Your task to perform on an android device: Go to display settings Image 0: 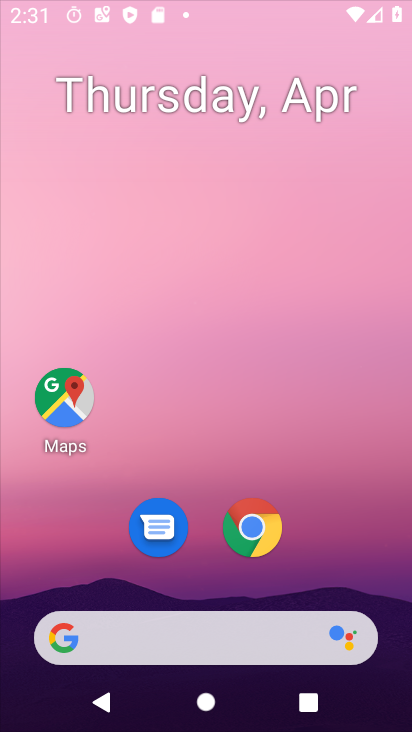
Step 0: click (300, 128)
Your task to perform on an android device: Go to display settings Image 1: 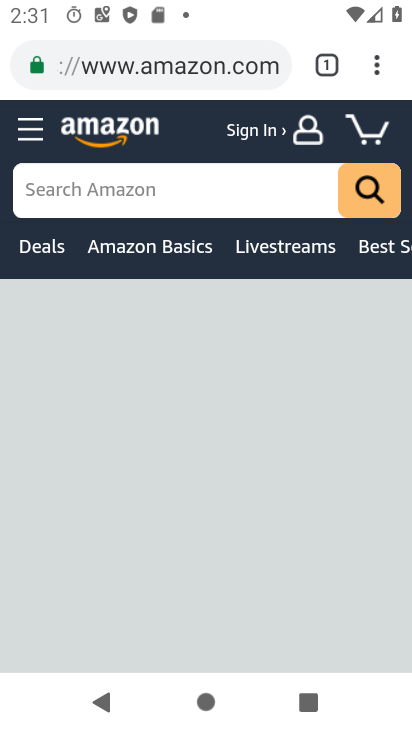
Step 1: press home button
Your task to perform on an android device: Go to display settings Image 2: 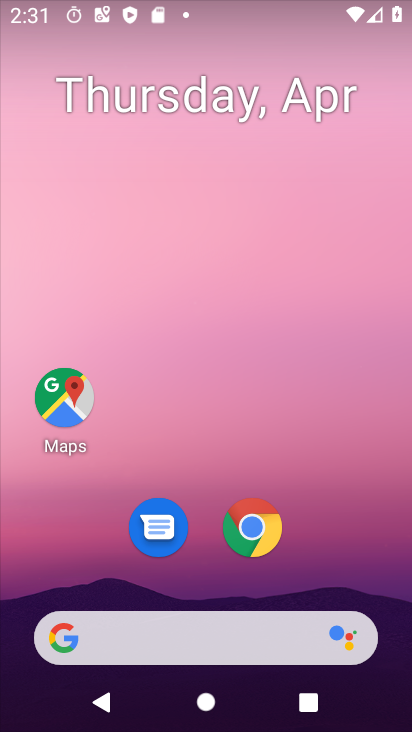
Step 2: drag from (327, 540) to (354, 106)
Your task to perform on an android device: Go to display settings Image 3: 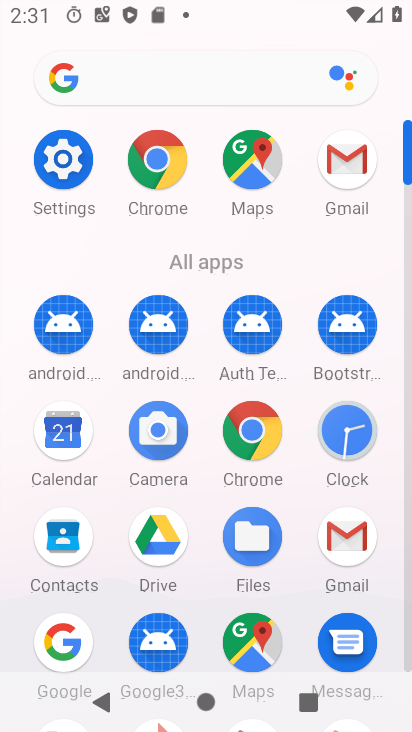
Step 3: click (74, 170)
Your task to perform on an android device: Go to display settings Image 4: 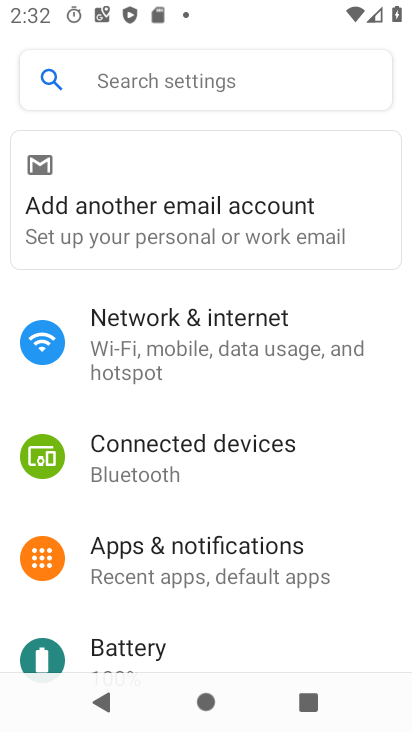
Step 4: drag from (219, 601) to (269, 228)
Your task to perform on an android device: Go to display settings Image 5: 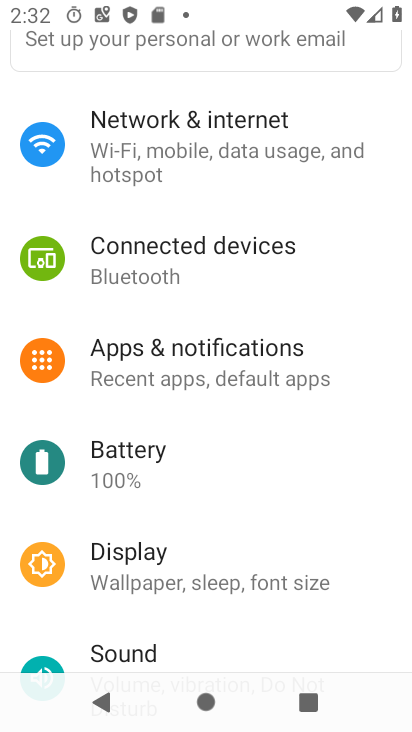
Step 5: click (163, 549)
Your task to perform on an android device: Go to display settings Image 6: 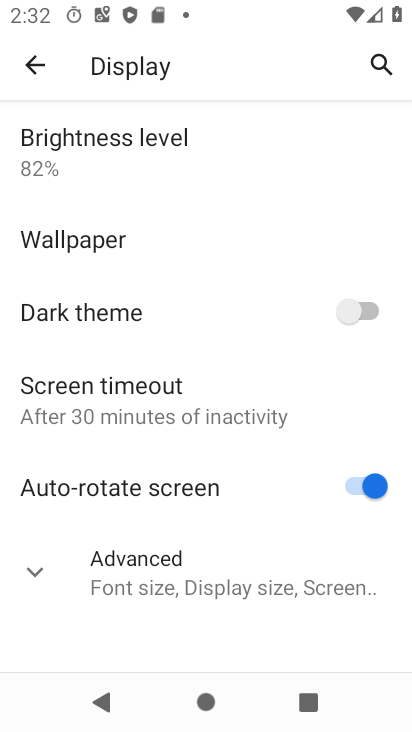
Step 6: task complete